Your task to perform on an android device: open app "Fetch Rewards" (install if not already installed), go to login, and select forgot password Image 0: 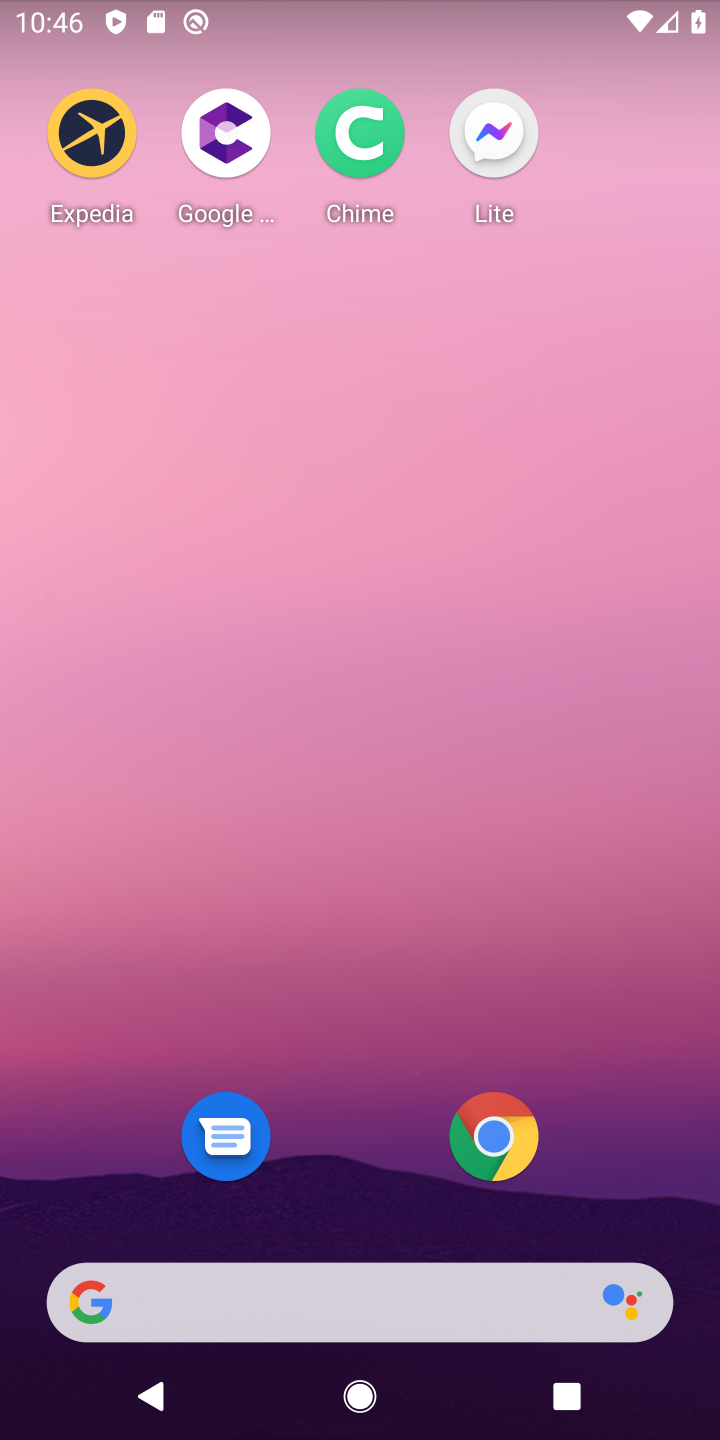
Step 0: drag from (328, 820) to (322, 458)
Your task to perform on an android device: open app "Fetch Rewards" (install if not already installed), go to login, and select forgot password Image 1: 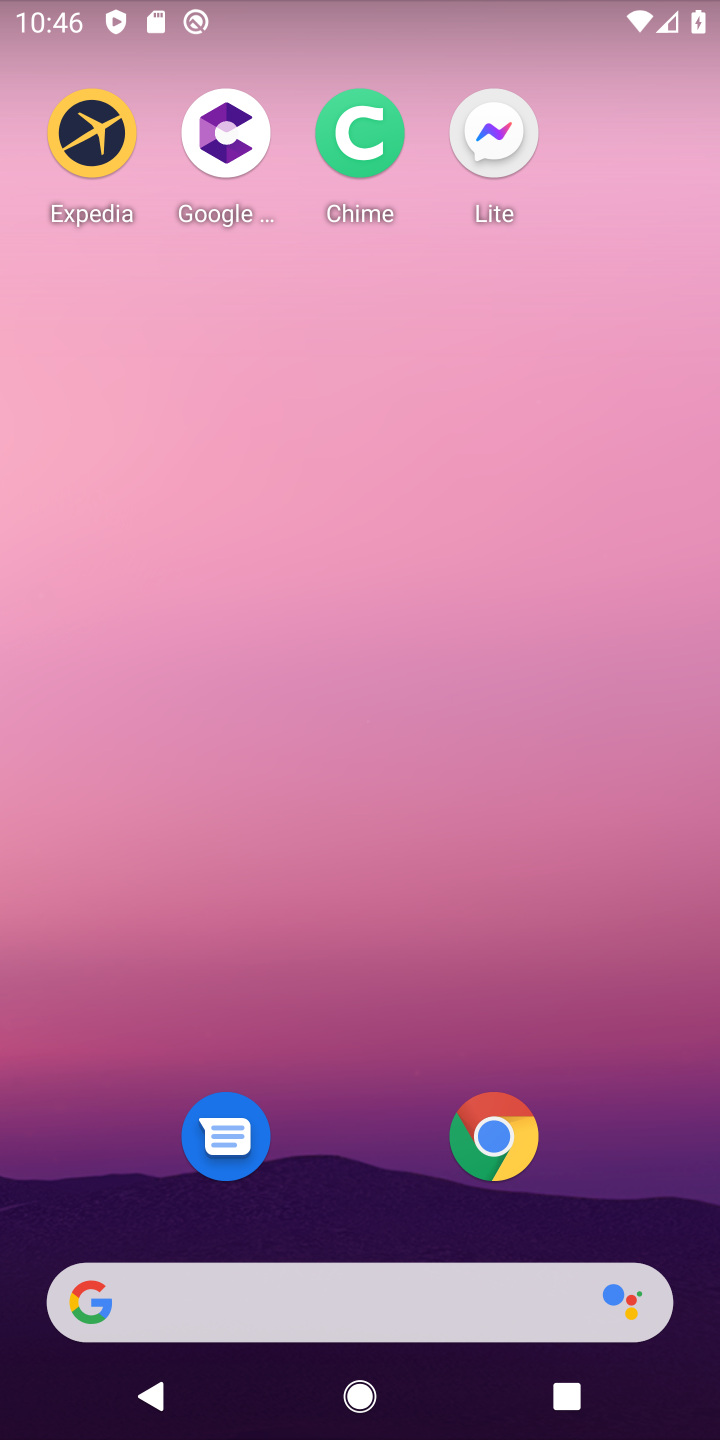
Step 1: drag from (329, 586) to (343, 347)
Your task to perform on an android device: open app "Fetch Rewards" (install if not already installed), go to login, and select forgot password Image 2: 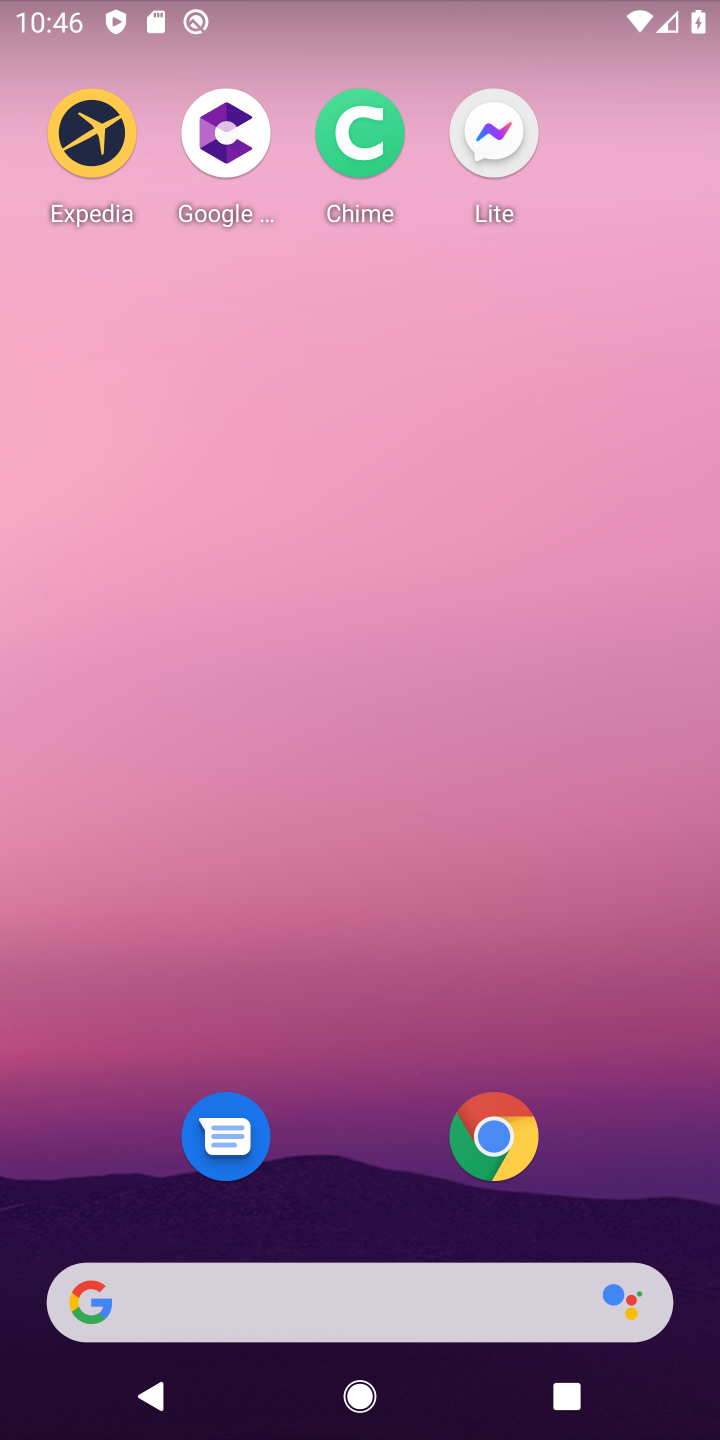
Step 2: drag from (357, 1155) to (714, 1157)
Your task to perform on an android device: open app "Fetch Rewards" (install if not already installed), go to login, and select forgot password Image 3: 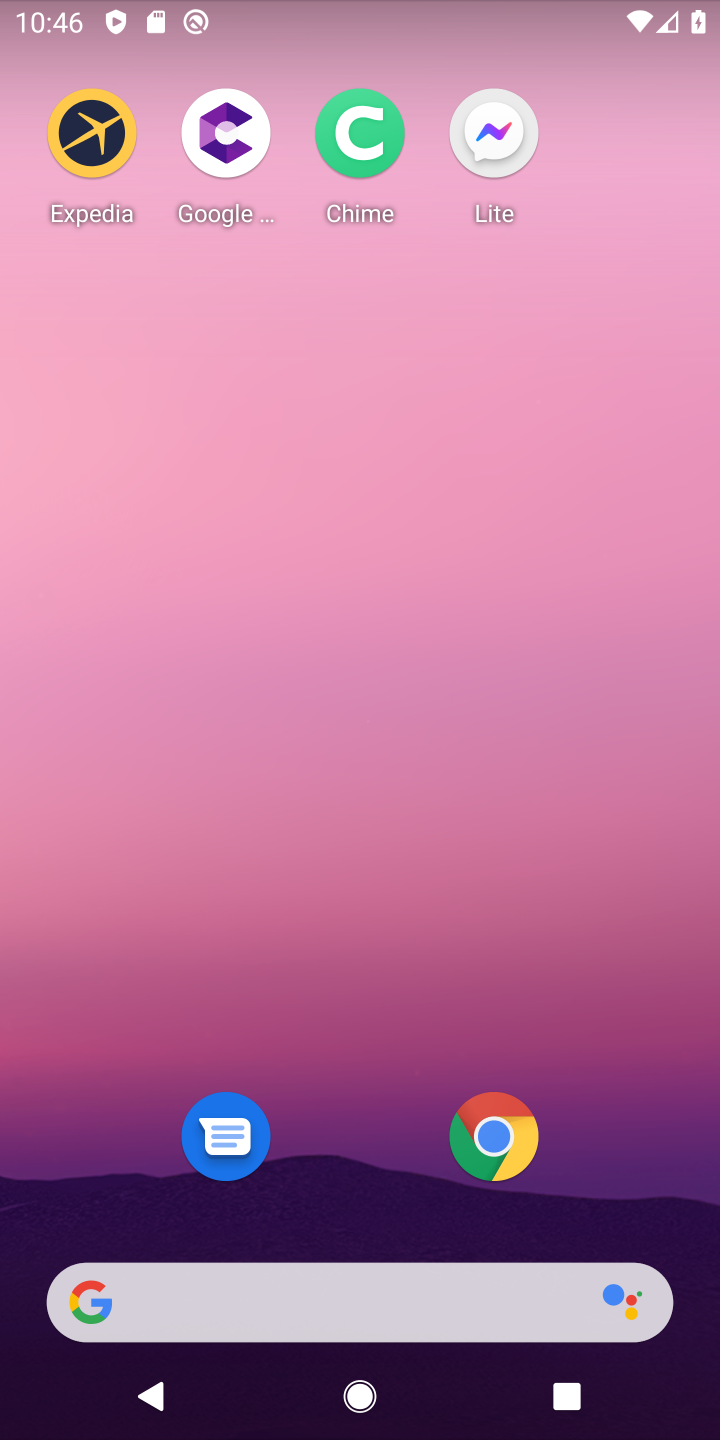
Step 3: drag from (376, 1136) to (322, 492)
Your task to perform on an android device: open app "Fetch Rewards" (install if not already installed), go to login, and select forgot password Image 4: 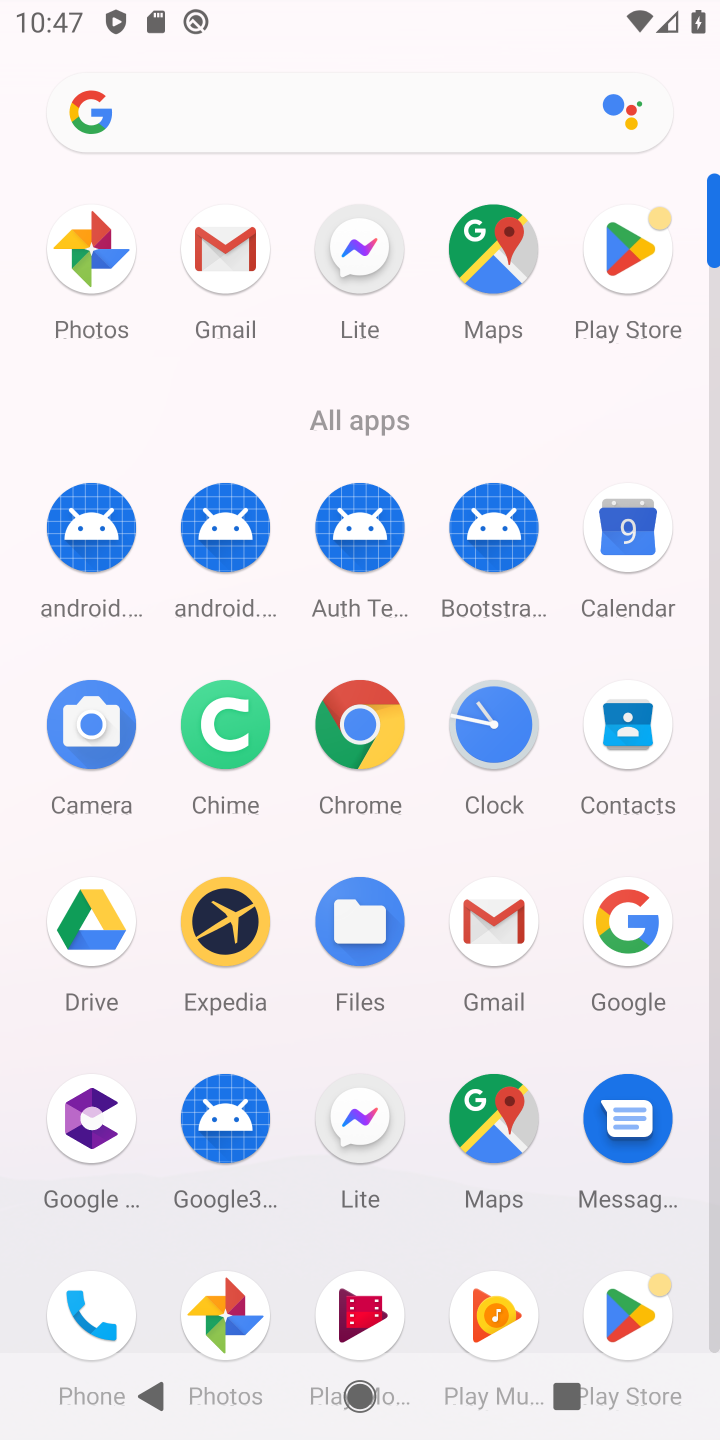
Step 4: click (671, 1292)
Your task to perform on an android device: open app "Fetch Rewards" (install if not already installed), go to login, and select forgot password Image 5: 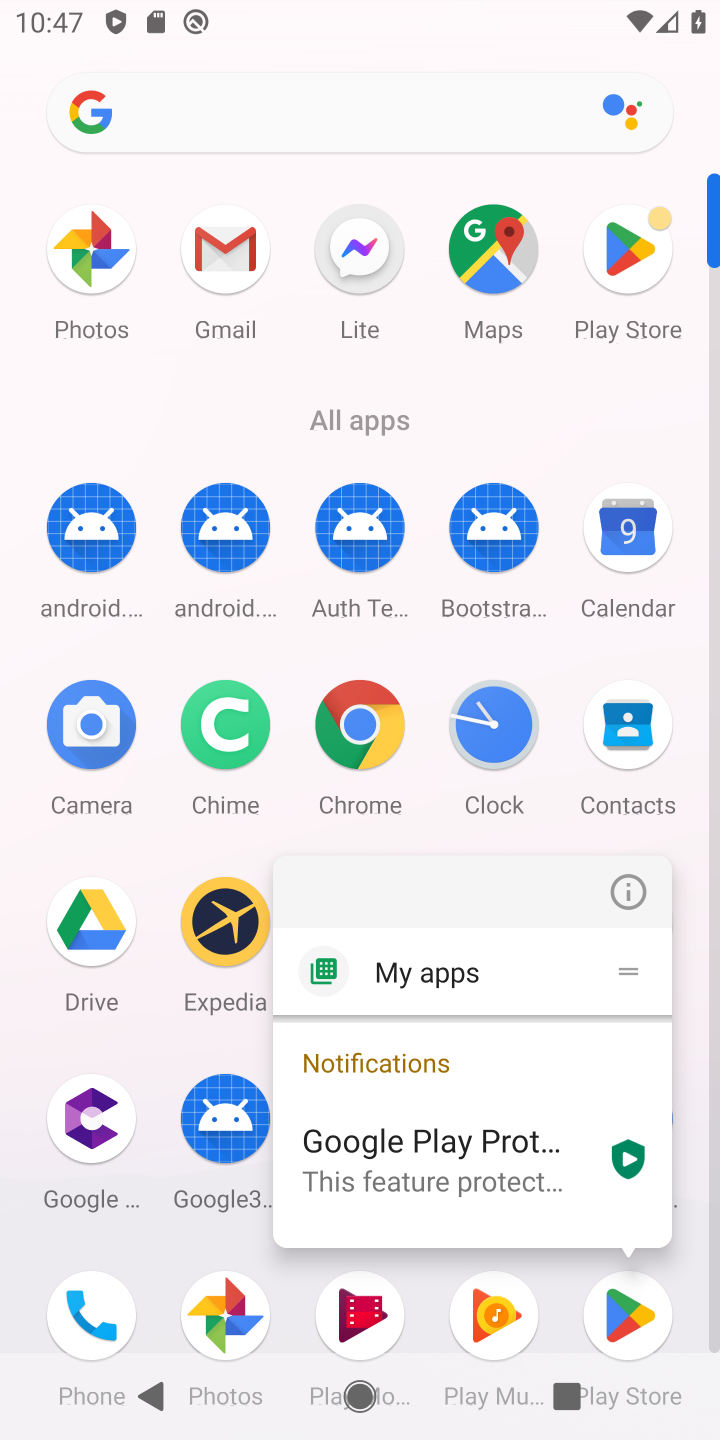
Step 5: click (650, 1311)
Your task to perform on an android device: open app "Fetch Rewards" (install if not already installed), go to login, and select forgot password Image 6: 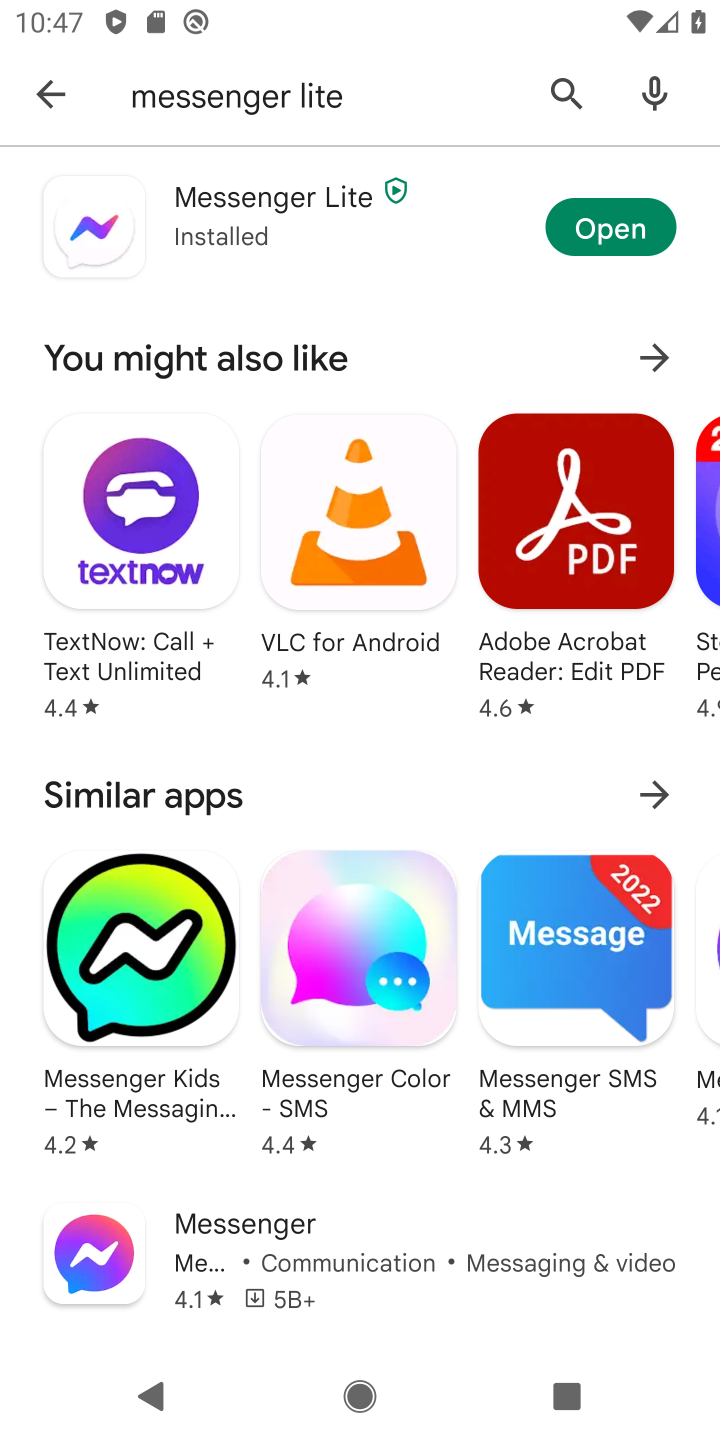
Step 6: click (303, 96)
Your task to perform on an android device: open app "Fetch Rewards" (install if not already installed), go to login, and select forgot password Image 7: 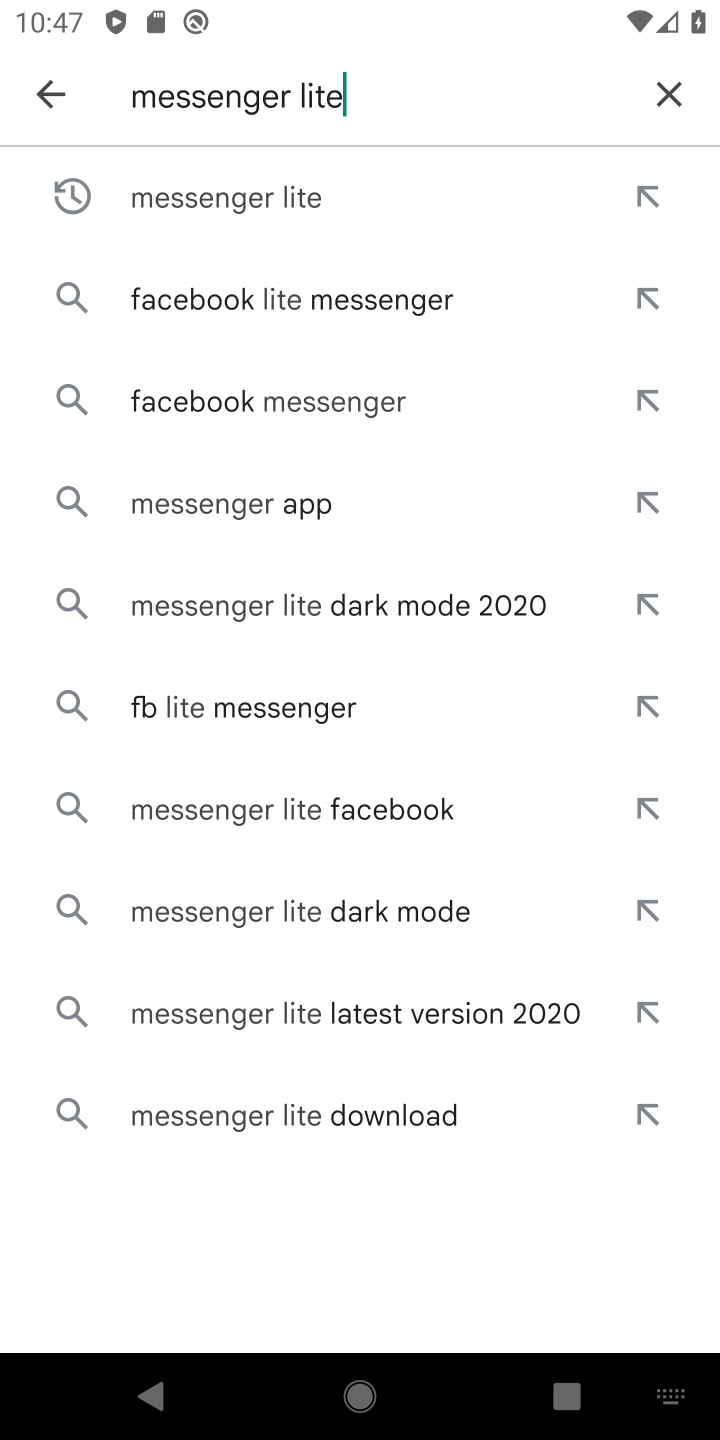
Step 7: click (673, 96)
Your task to perform on an android device: open app "Fetch Rewards" (install if not already installed), go to login, and select forgot password Image 8: 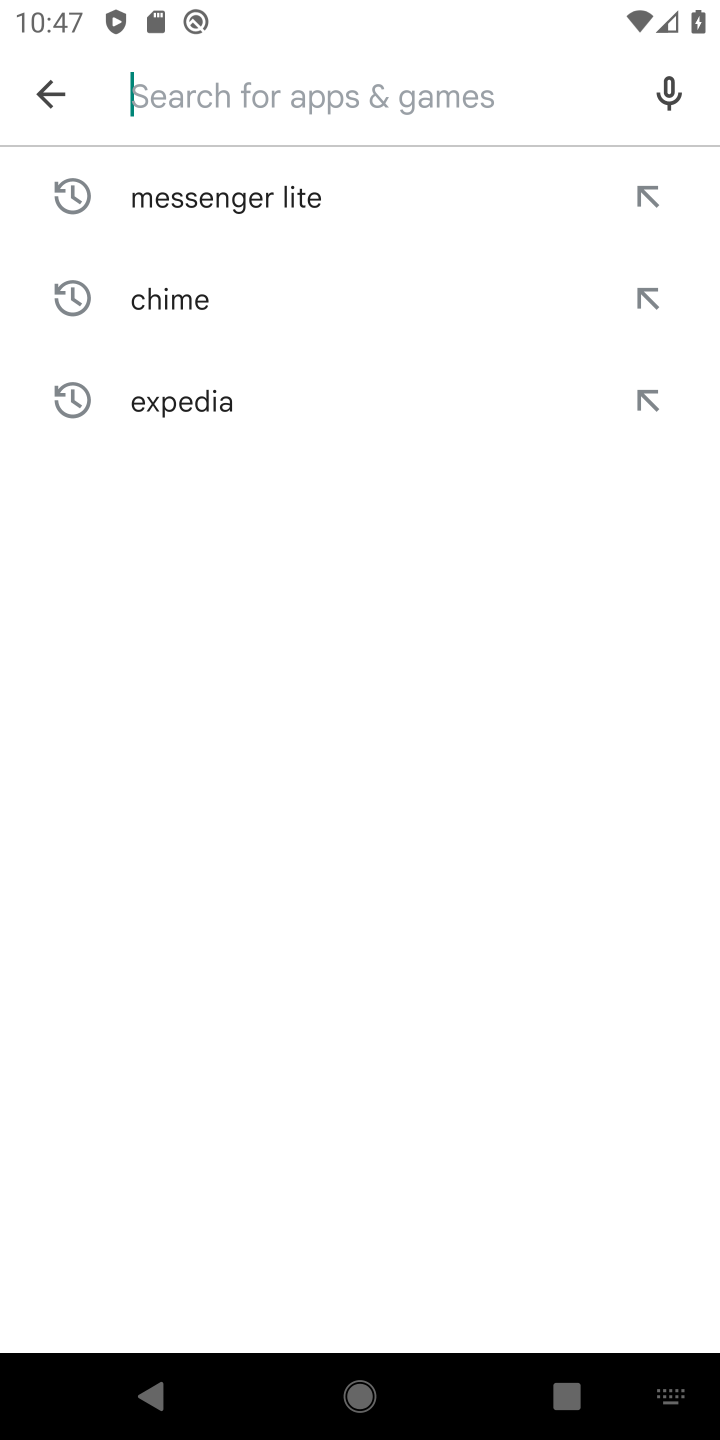
Step 8: type "fetch rewards"
Your task to perform on an android device: open app "Fetch Rewards" (install if not already installed), go to login, and select forgot password Image 9: 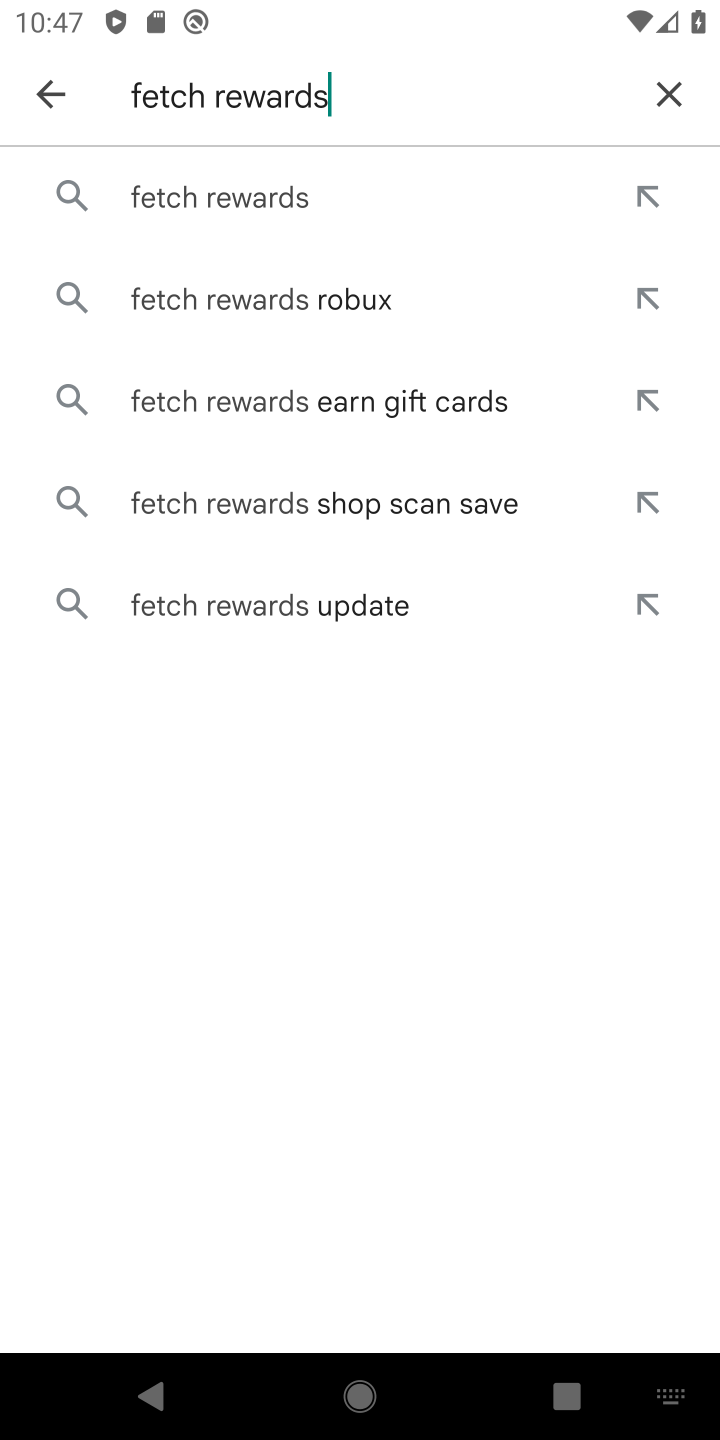
Step 9: click (231, 214)
Your task to perform on an android device: open app "Fetch Rewards" (install if not already installed), go to login, and select forgot password Image 10: 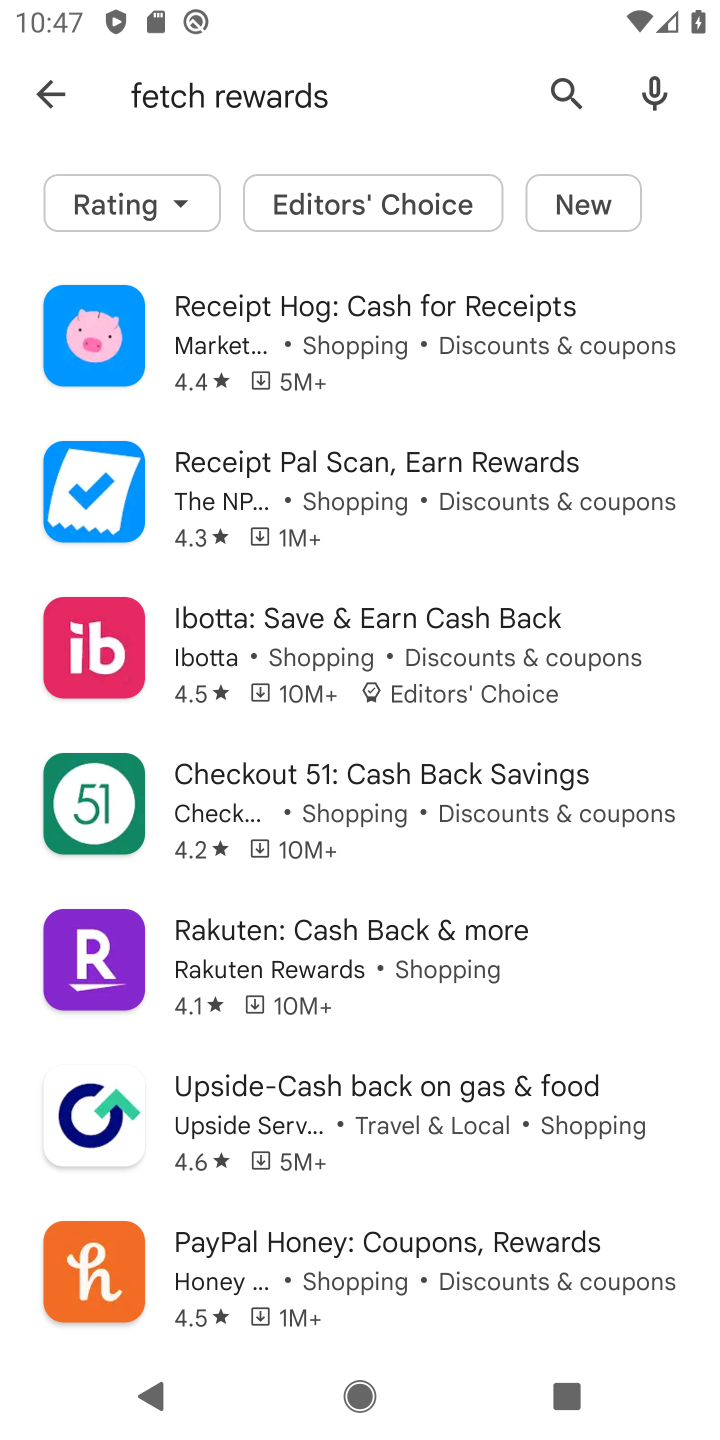
Step 10: task complete